Your task to perform on an android device: When is my next appointment? Image 0: 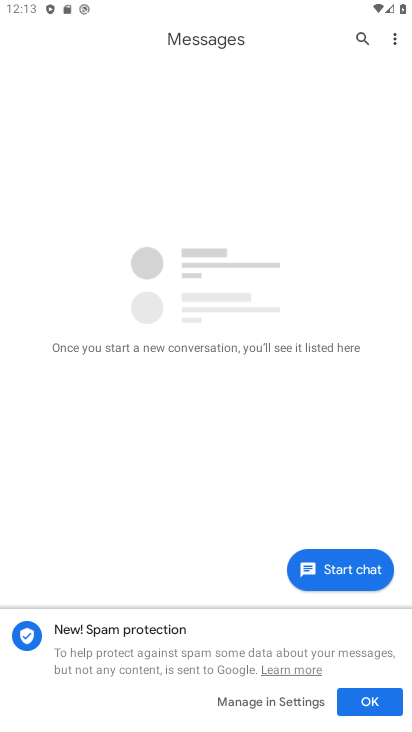
Step 0: press home button
Your task to perform on an android device: When is my next appointment? Image 1: 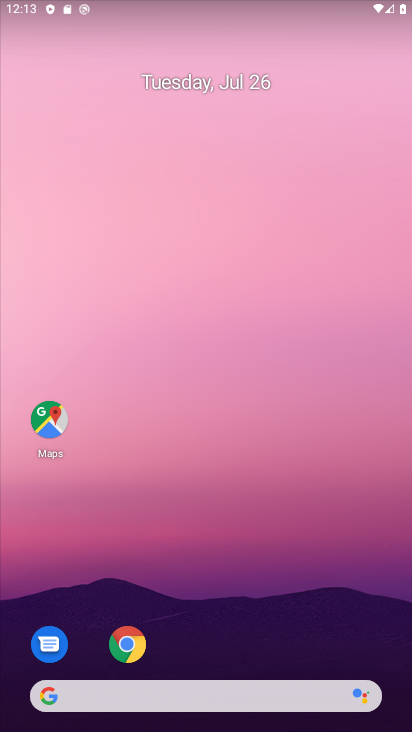
Step 1: drag from (235, 657) to (205, 160)
Your task to perform on an android device: When is my next appointment? Image 2: 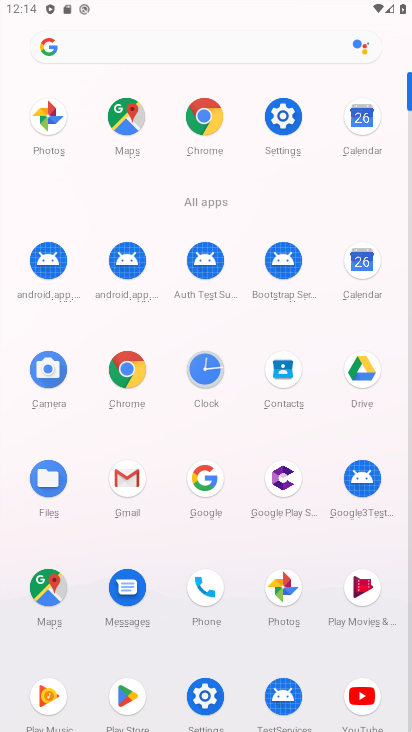
Step 2: click (359, 262)
Your task to perform on an android device: When is my next appointment? Image 3: 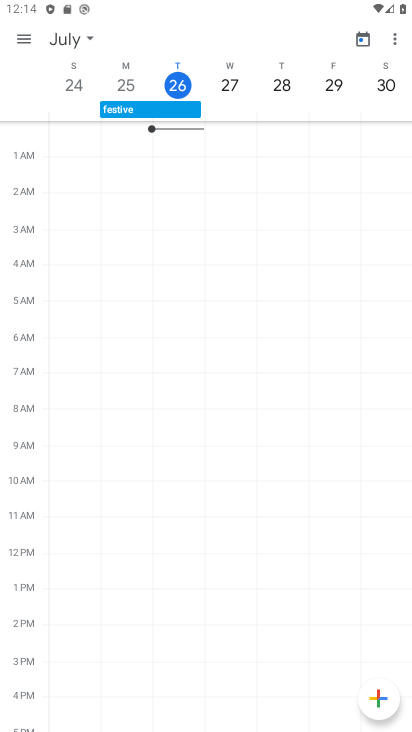
Step 3: click (32, 38)
Your task to perform on an android device: When is my next appointment? Image 4: 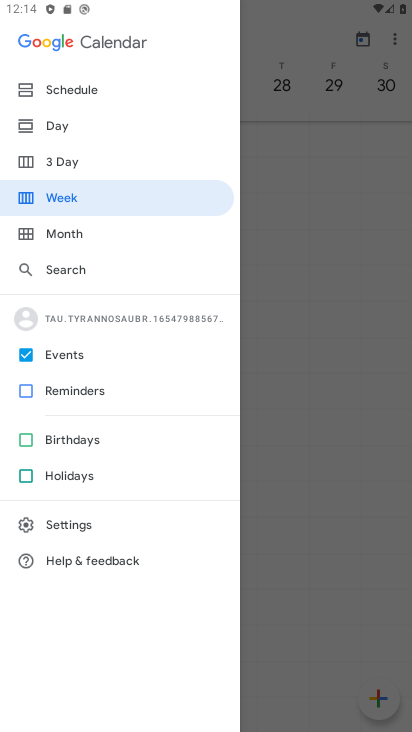
Step 4: click (69, 92)
Your task to perform on an android device: When is my next appointment? Image 5: 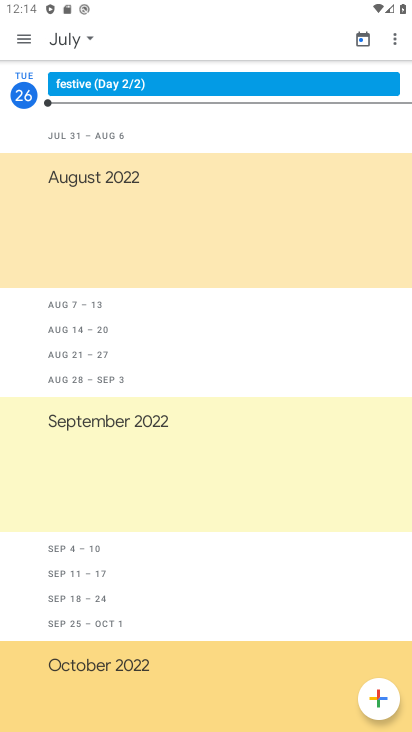
Step 5: task complete